Your task to perform on an android device: change the clock style Image 0: 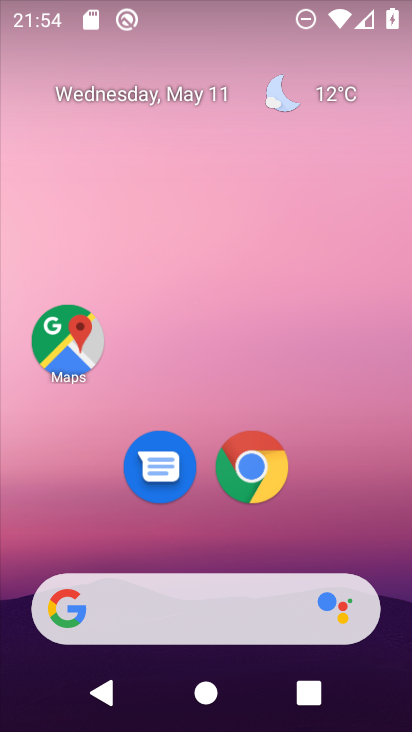
Step 0: click (338, 586)
Your task to perform on an android device: change the clock style Image 1: 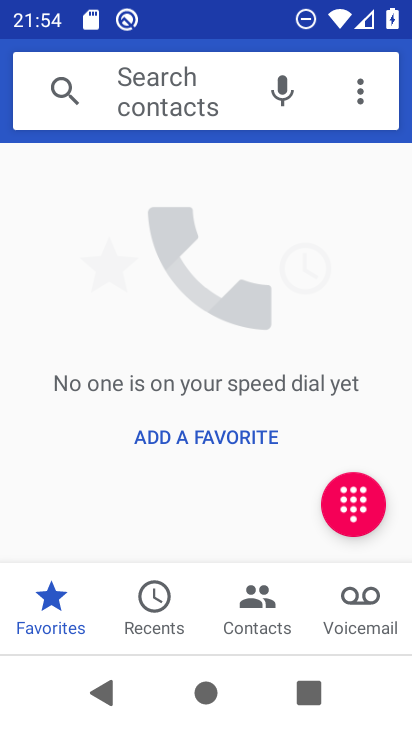
Step 1: press home button
Your task to perform on an android device: change the clock style Image 2: 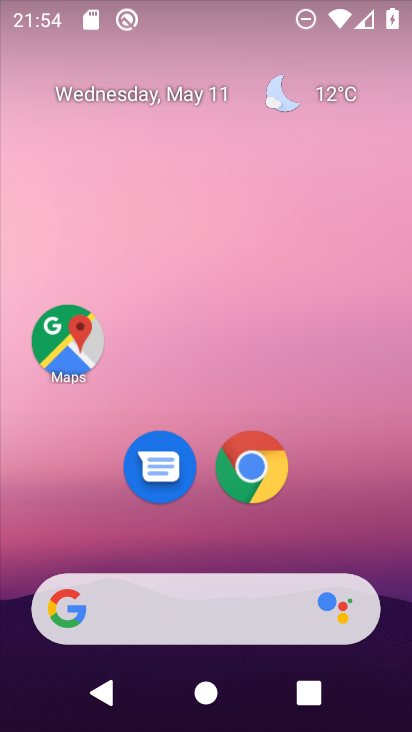
Step 2: drag from (217, 551) to (217, 19)
Your task to perform on an android device: change the clock style Image 3: 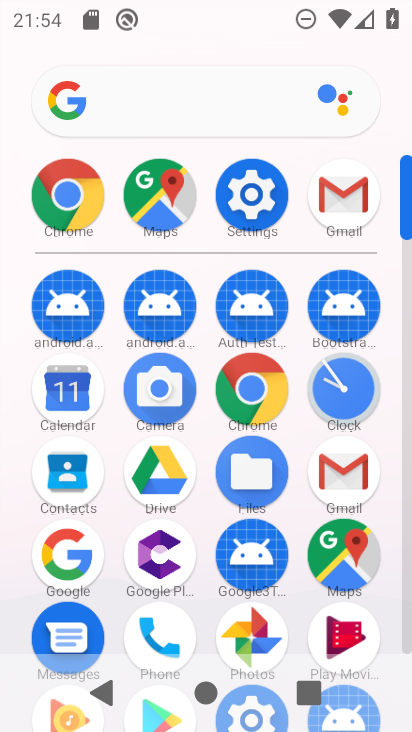
Step 3: click (336, 384)
Your task to perform on an android device: change the clock style Image 4: 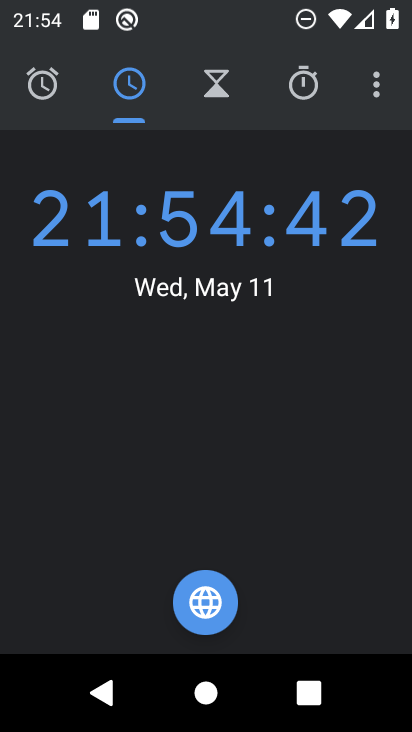
Step 4: click (380, 71)
Your task to perform on an android device: change the clock style Image 5: 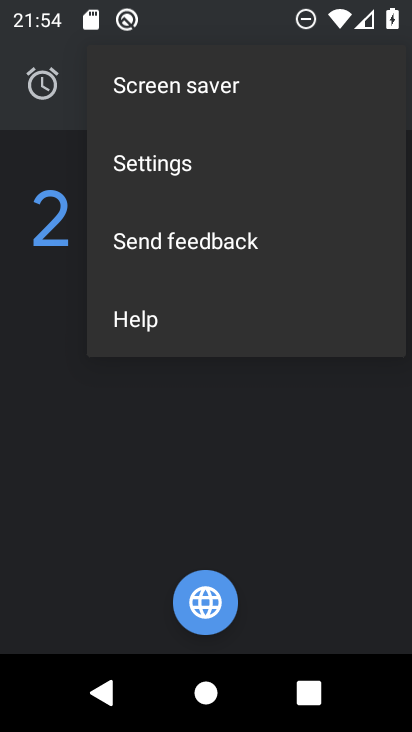
Step 5: click (196, 167)
Your task to perform on an android device: change the clock style Image 6: 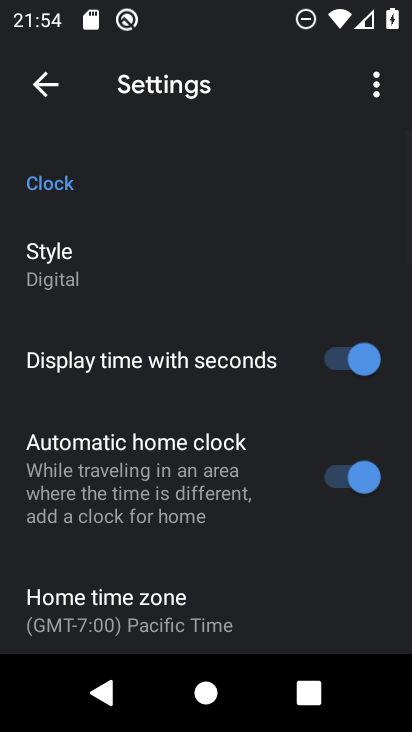
Step 6: click (90, 261)
Your task to perform on an android device: change the clock style Image 7: 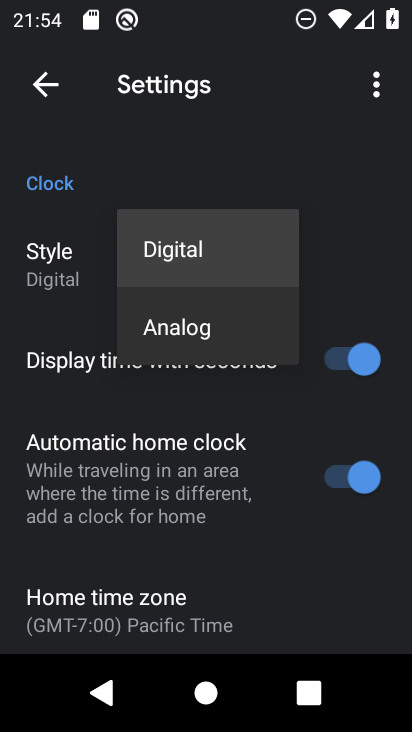
Step 7: click (197, 332)
Your task to perform on an android device: change the clock style Image 8: 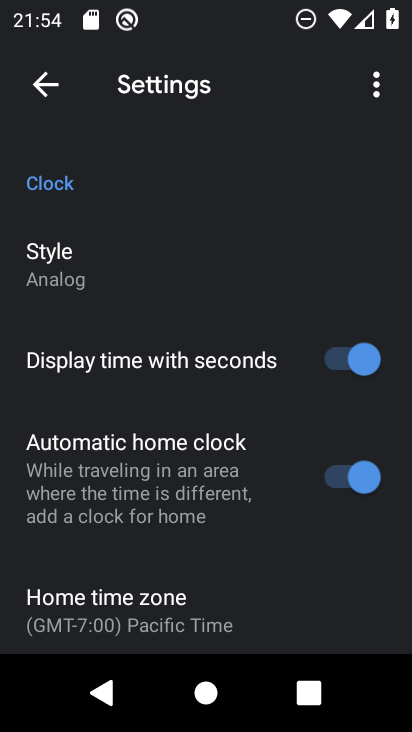
Step 8: task complete